Your task to perform on an android device: Toggle the flashlight Image 0: 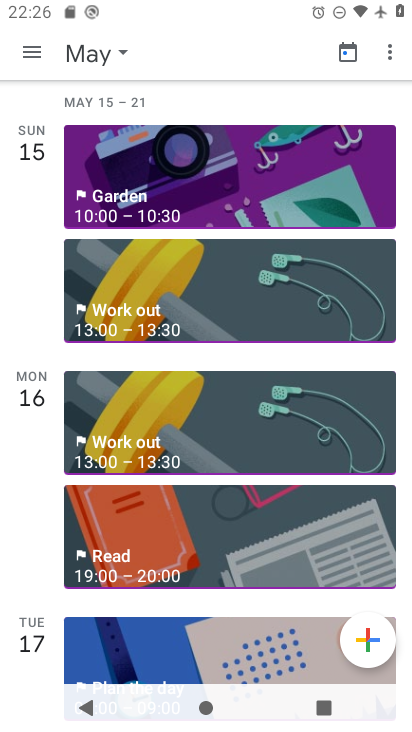
Step 0: press home button
Your task to perform on an android device: Toggle the flashlight Image 1: 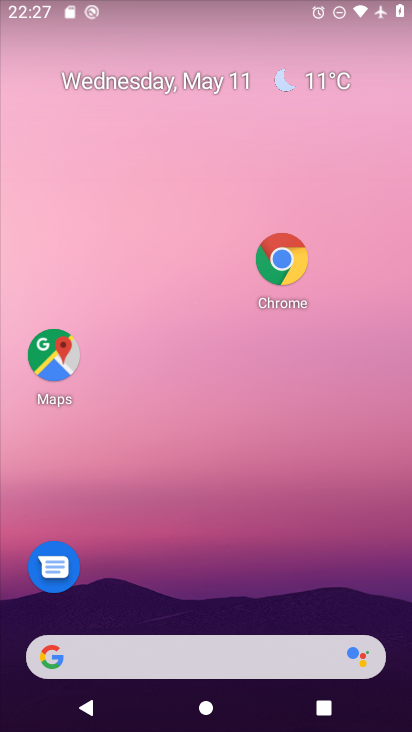
Step 1: task complete